Your task to perform on an android device: turn off picture-in-picture Image 0: 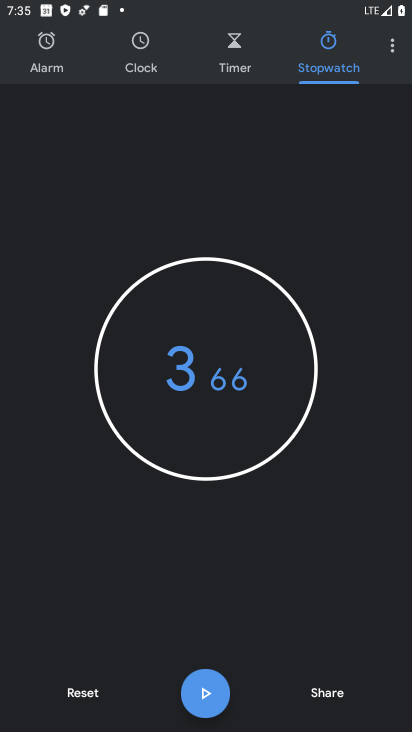
Step 0: press home button
Your task to perform on an android device: turn off picture-in-picture Image 1: 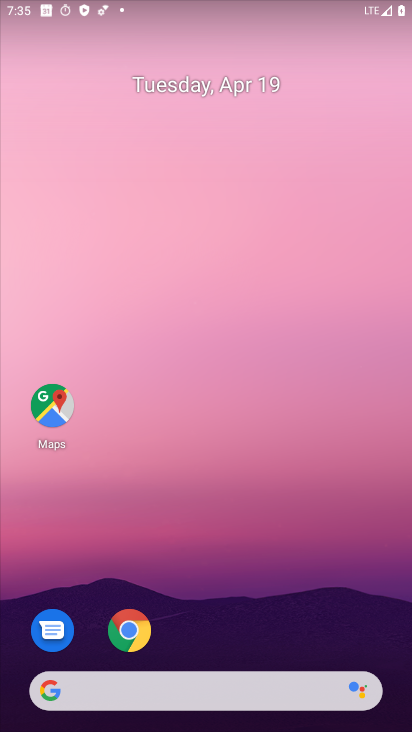
Step 1: drag from (234, 661) to (15, 94)
Your task to perform on an android device: turn off picture-in-picture Image 2: 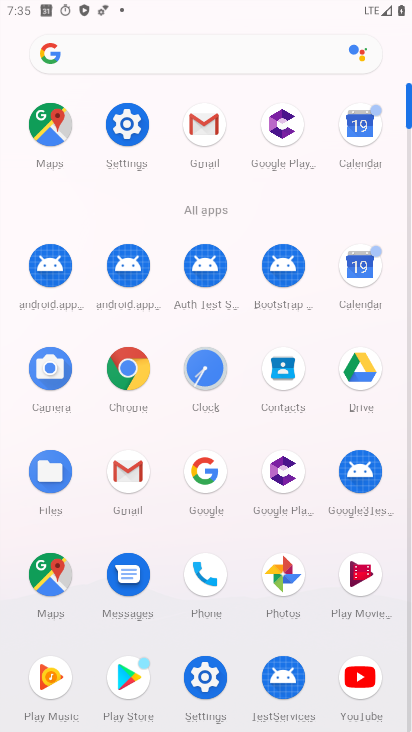
Step 2: click (130, 114)
Your task to perform on an android device: turn off picture-in-picture Image 3: 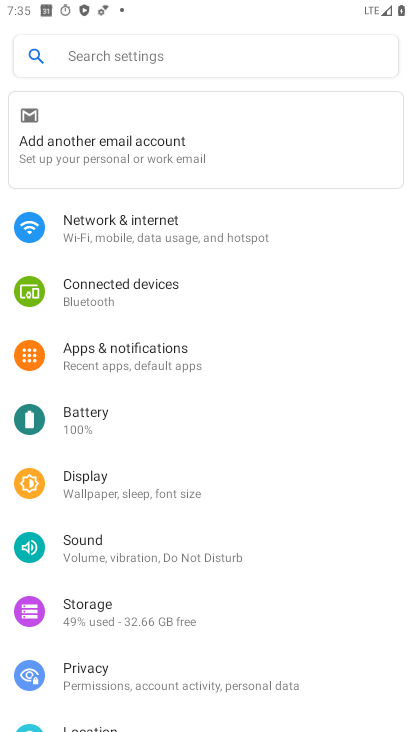
Step 3: click (153, 373)
Your task to perform on an android device: turn off picture-in-picture Image 4: 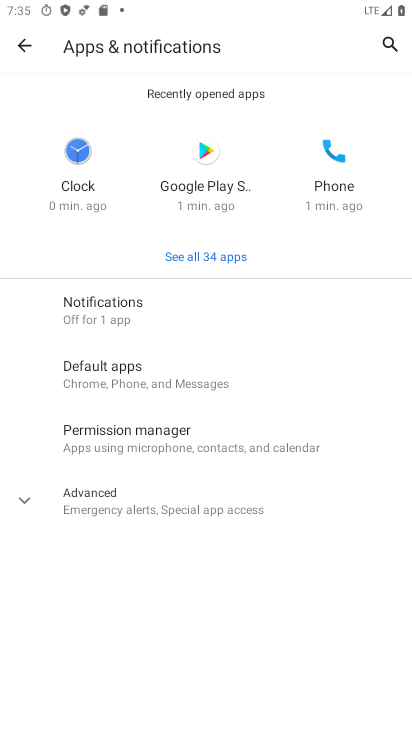
Step 4: click (118, 495)
Your task to perform on an android device: turn off picture-in-picture Image 5: 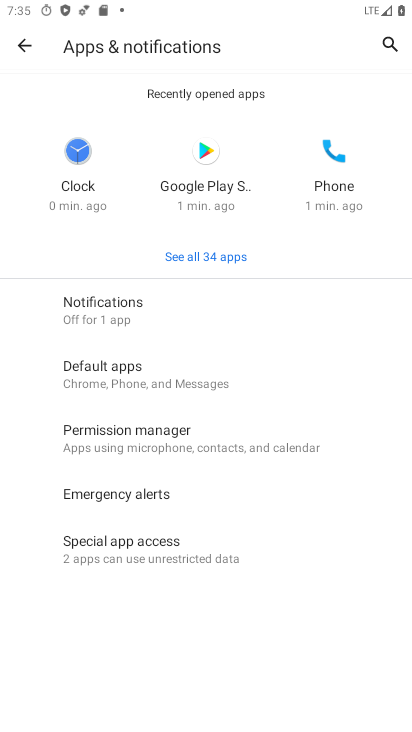
Step 5: click (136, 537)
Your task to perform on an android device: turn off picture-in-picture Image 6: 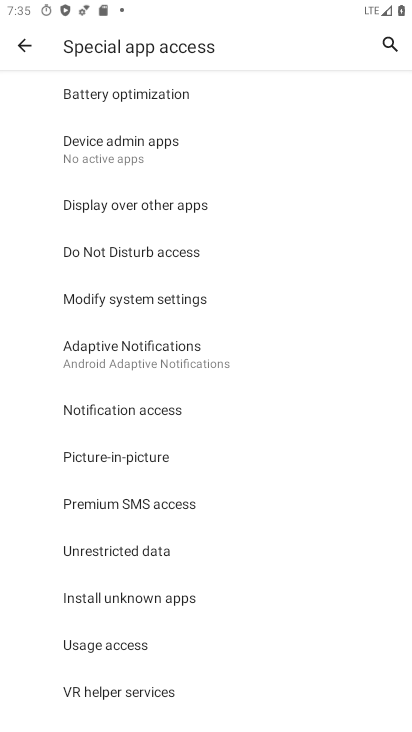
Step 6: click (111, 453)
Your task to perform on an android device: turn off picture-in-picture Image 7: 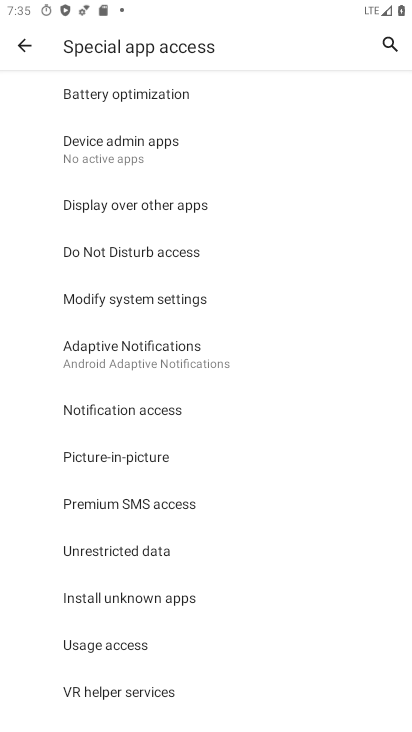
Step 7: task complete